Your task to perform on an android device: toggle improve location accuracy Image 0: 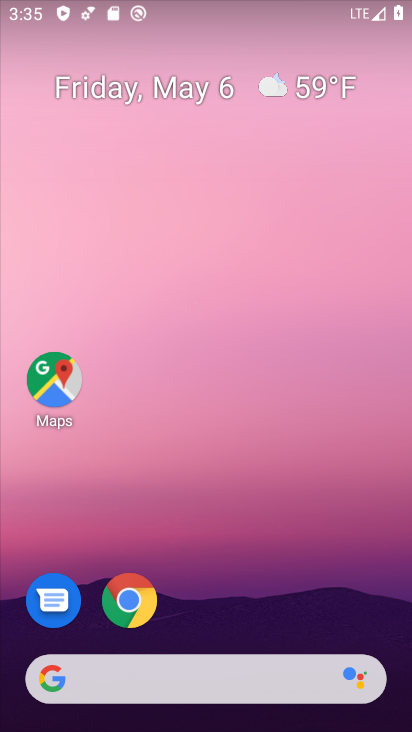
Step 0: drag from (222, 632) to (280, 75)
Your task to perform on an android device: toggle improve location accuracy Image 1: 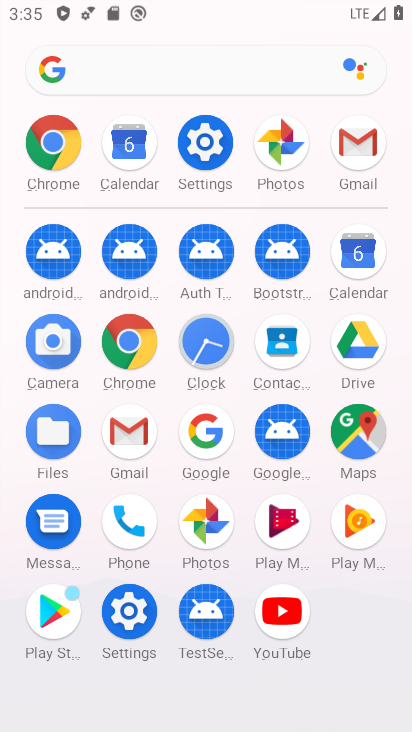
Step 1: click (129, 611)
Your task to perform on an android device: toggle improve location accuracy Image 2: 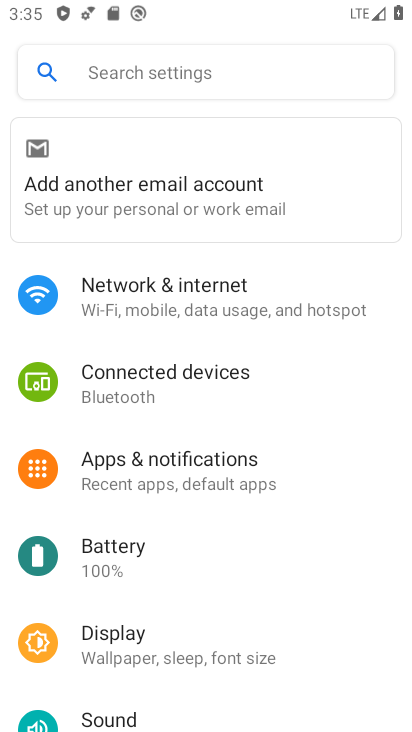
Step 2: drag from (156, 568) to (223, 206)
Your task to perform on an android device: toggle improve location accuracy Image 3: 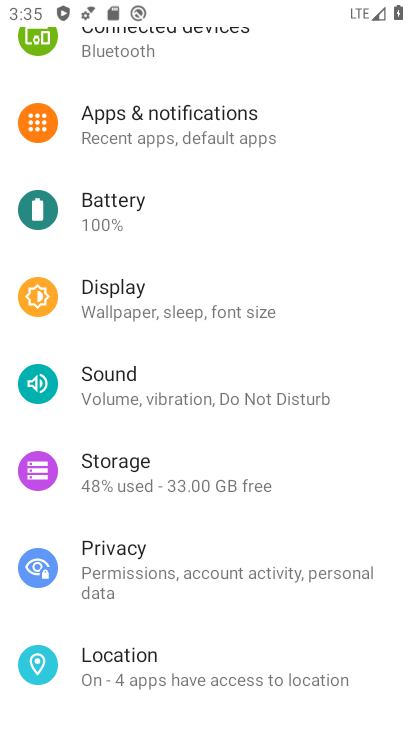
Step 3: click (153, 658)
Your task to perform on an android device: toggle improve location accuracy Image 4: 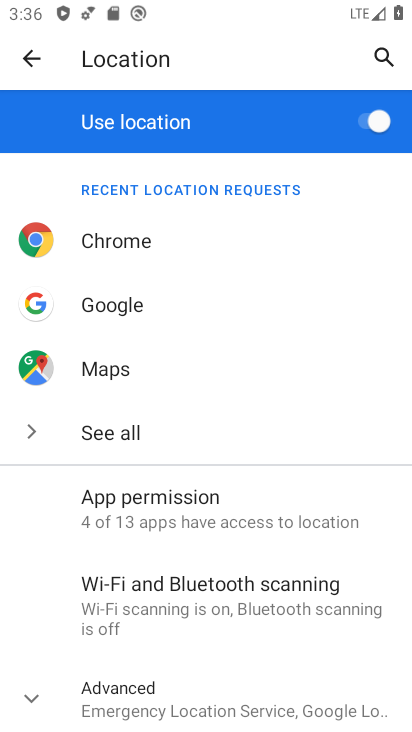
Step 4: drag from (174, 622) to (222, 406)
Your task to perform on an android device: toggle improve location accuracy Image 5: 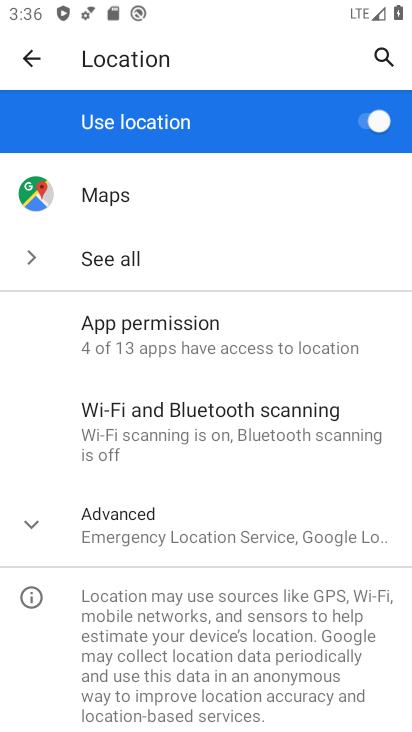
Step 5: click (150, 520)
Your task to perform on an android device: toggle improve location accuracy Image 6: 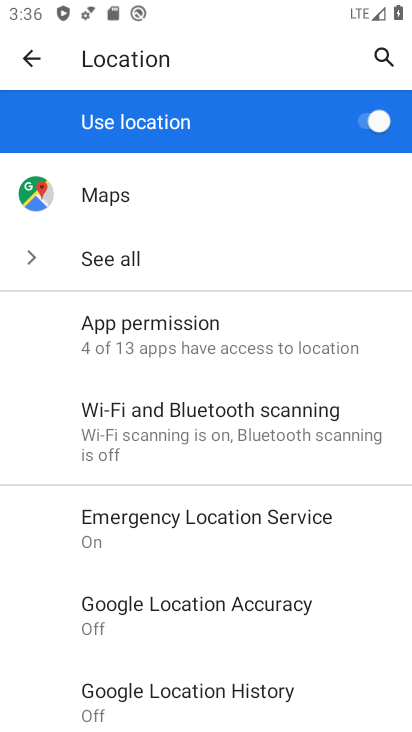
Step 6: click (286, 630)
Your task to perform on an android device: toggle improve location accuracy Image 7: 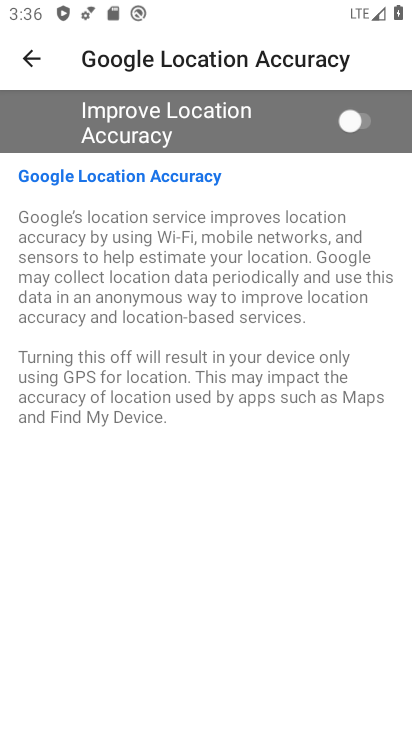
Step 7: click (371, 114)
Your task to perform on an android device: toggle improve location accuracy Image 8: 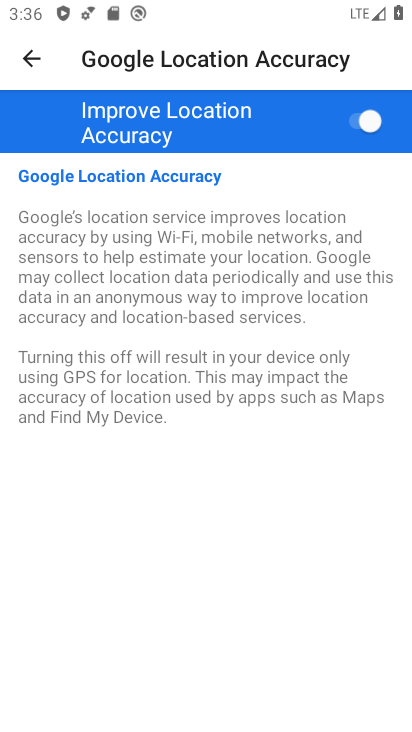
Step 8: task complete